Your task to perform on an android device: toggle priority inbox in the gmail app Image 0: 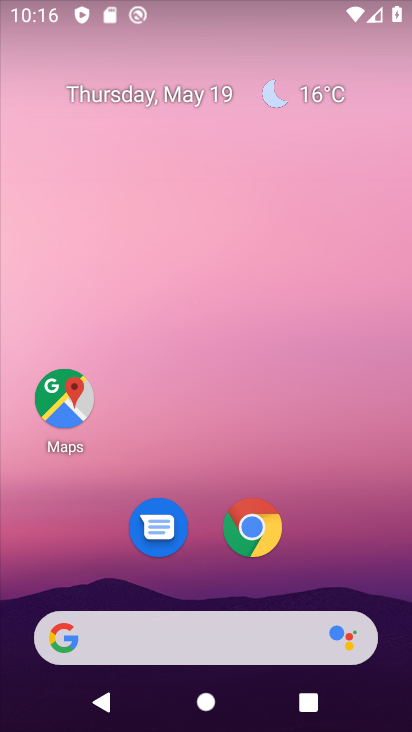
Step 0: drag from (179, 491) to (170, 259)
Your task to perform on an android device: toggle priority inbox in the gmail app Image 1: 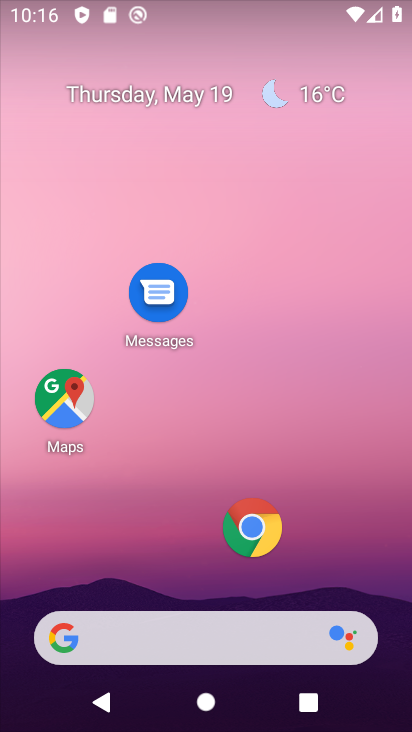
Step 1: drag from (184, 571) to (175, 209)
Your task to perform on an android device: toggle priority inbox in the gmail app Image 2: 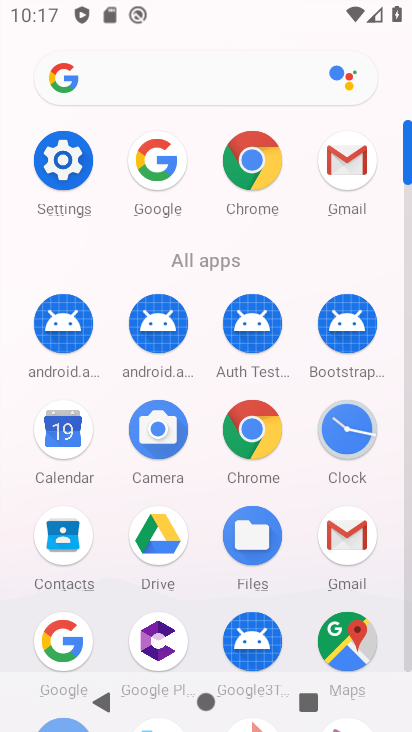
Step 2: drag from (197, 508) to (220, 205)
Your task to perform on an android device: toggle priority inbox in the gmail app Image 3: 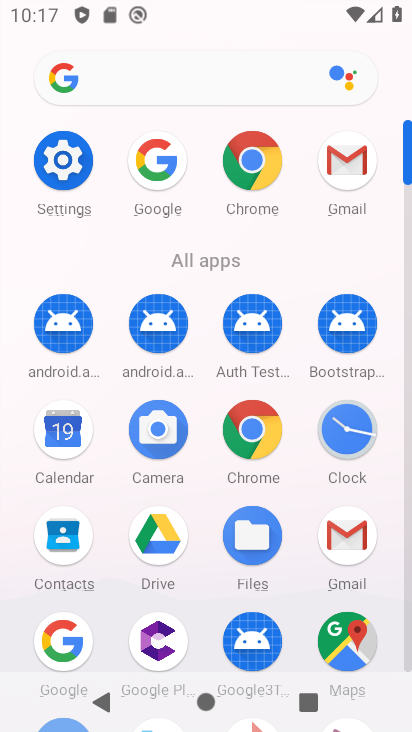
Step 3: click (344, 155)
Your task to perform on an android device: toggle priority inbox in the gmail app Image 4: 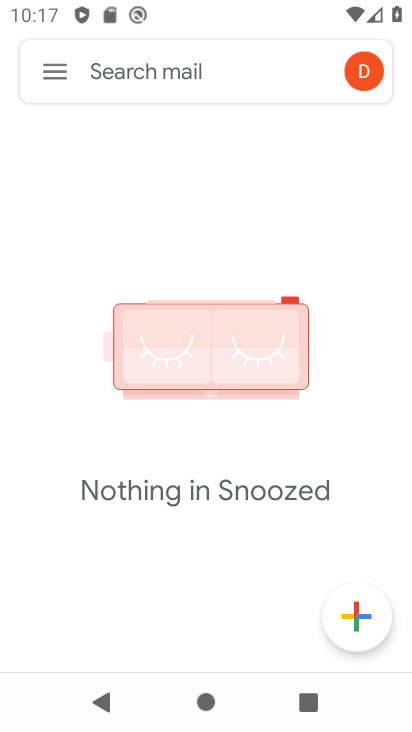
Step 4: click (58, 66)
Your task to perform on an android device: toggle priority inbox in the gmail app Image 5: 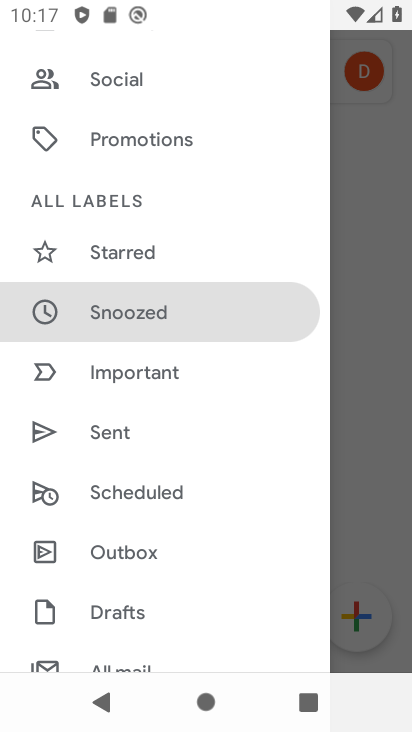
Step 5: drag from (113, 645) to (113, 185)
Your task to perform on an android device: toggle priority inbox in the gmail app Image 6: 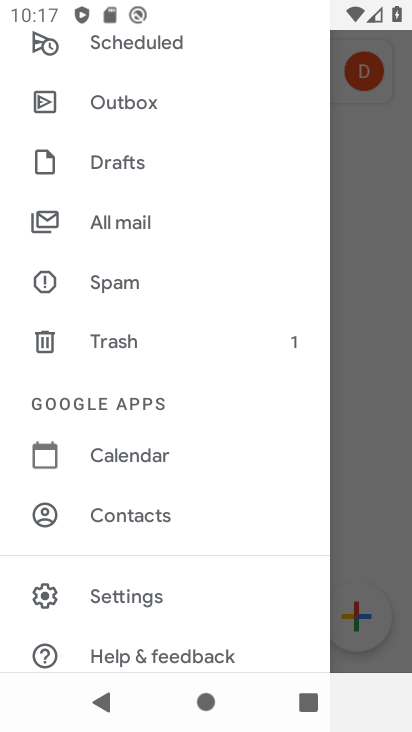
Step 6: drag from (97, 566) to (107, 190)
Your task to perform on an android device: toggle priority inbox in the gmail app Image 7: 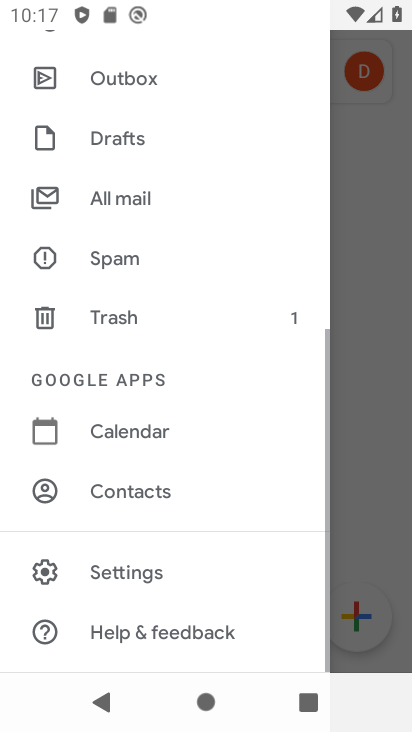
Step 7: click (122, 597)
Your task to perform on an android device: toggle priority inbox in the gmail app Image 8: 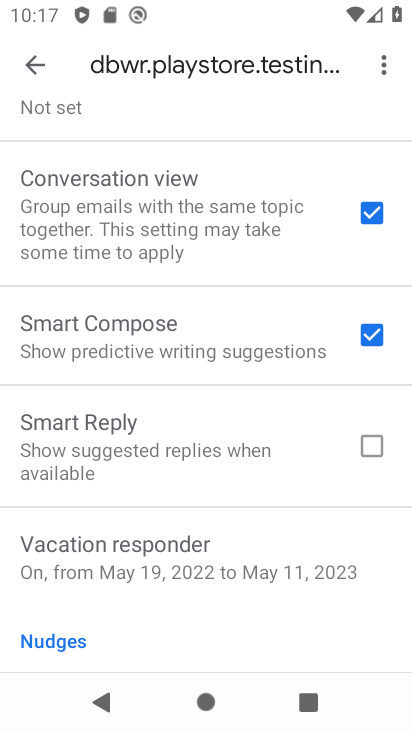
Step 8: drag from (155, 322) to (126, 664)
Your task to perform on an android device: toggle priority inbox in the gmail app Image 9: 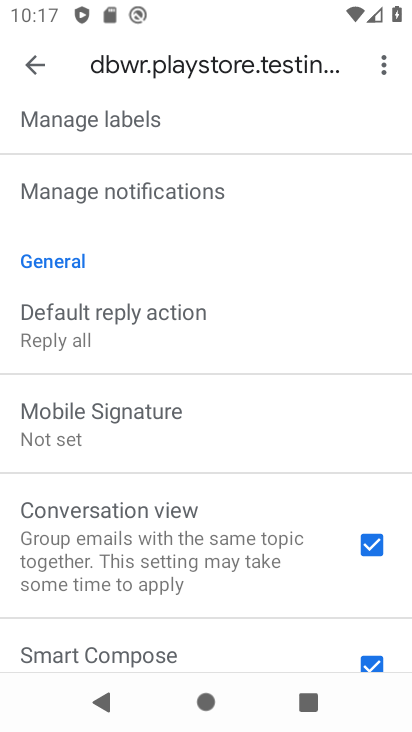
Step 9: drag from (214, 175) to (207, 506)
Your task to perform on an android device: toggle priority inbox in the gmail app Image 10: 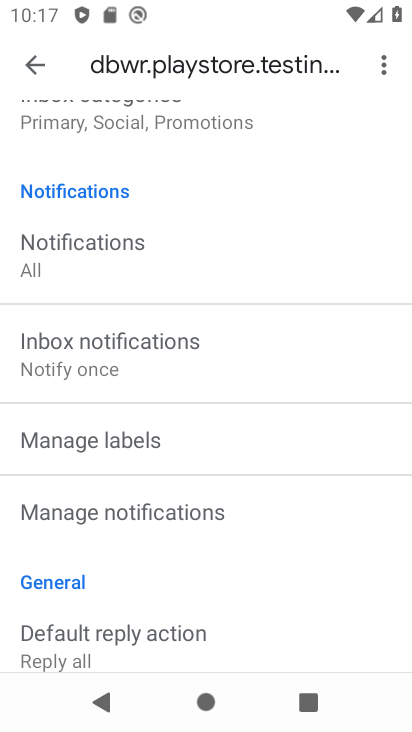
Step 10: click (160, 553)
Your task to perform on an android device: toggle priority inbox in the gmail app Image 11: 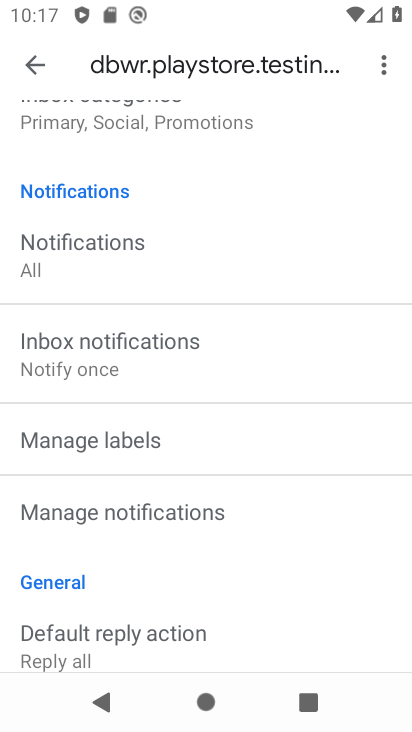
Step 11: drag from (100, 156) to (91, 581)
Your task to perform on an android device: toggle priority inbox in the gmail app Image 12: 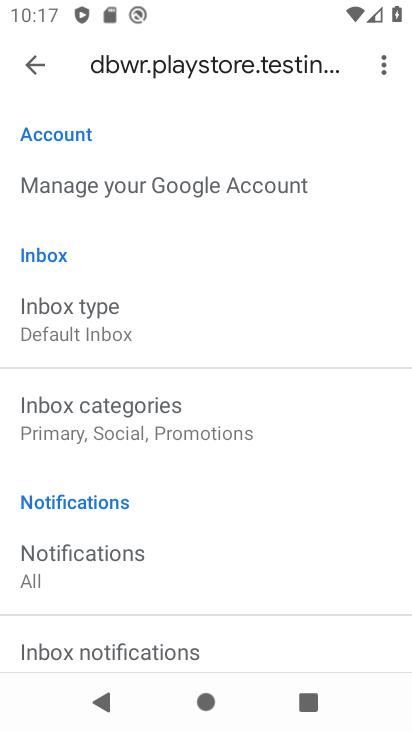
Step 12: drag from (163, 499) to (164, 568)
Your task to perform on an android device: toggle priority inbox in the gmail app Image 13: 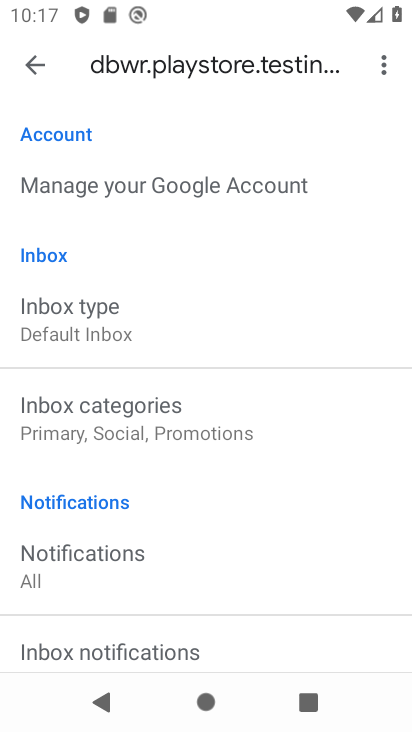
Step 13: drag from (112, 221) to (120, 496)
Your task to perform on an android device: toggle priority inbox in the gmail app Image 14: 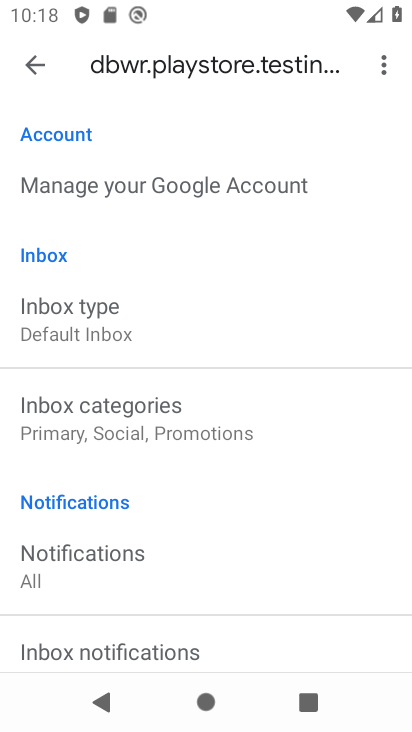
Step 14: click (60, 328)
Your task to perform on an android device: toggle priority inbox in the gmail app Image 15: 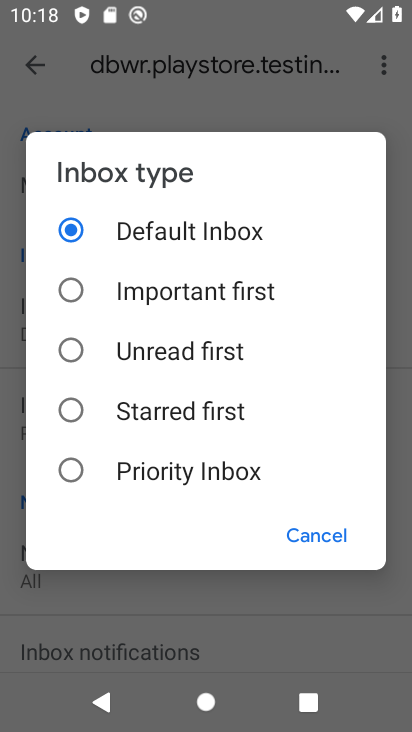
Step 15: click (105, 318)
Your task to perform on an android device: toggle priority inbox in the gmail app Image 16: 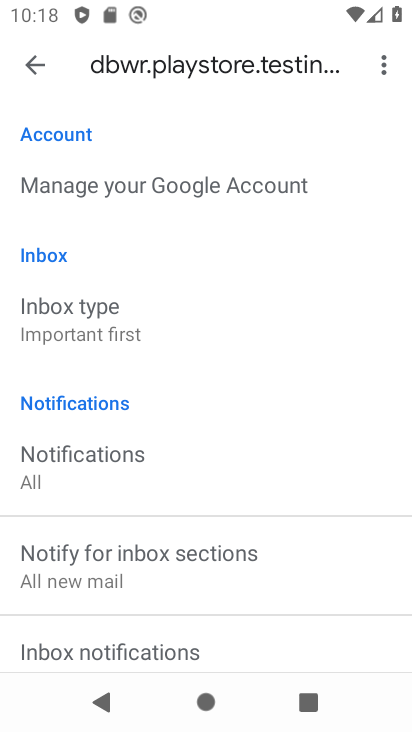
Step 16: click (71, 325)
Your task to perform on an android device: toggle priority inbox in the gmail app Image 17: 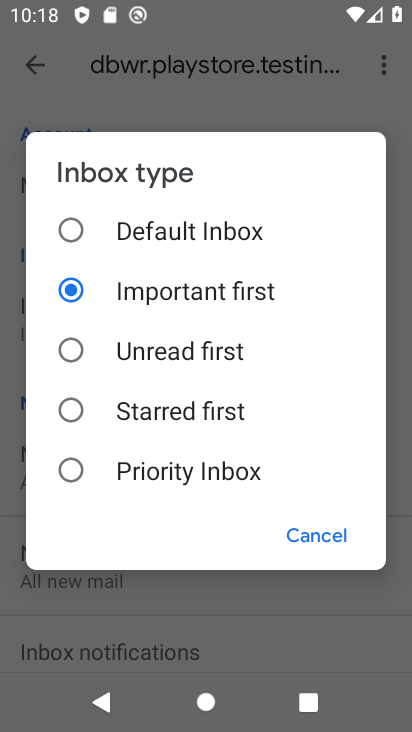
Step 17: click (117, 472)
Your task to perform on an android device: toggle priority inbox in the gmail app Image 18: 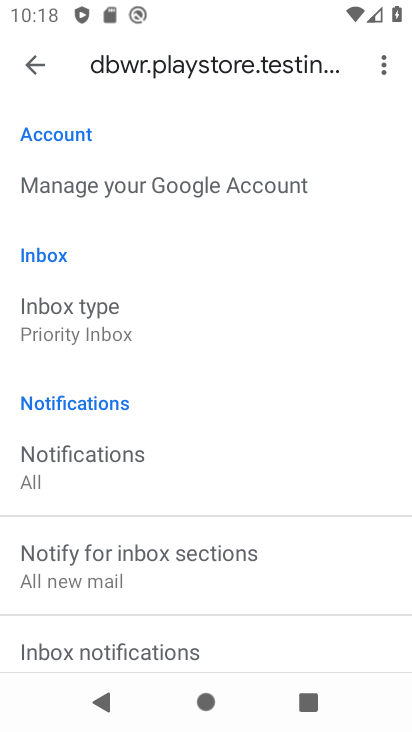
Step 18: click (72, 473)
Your task to perform on an android device: toggle priority inbox in the gmail app Image 19: 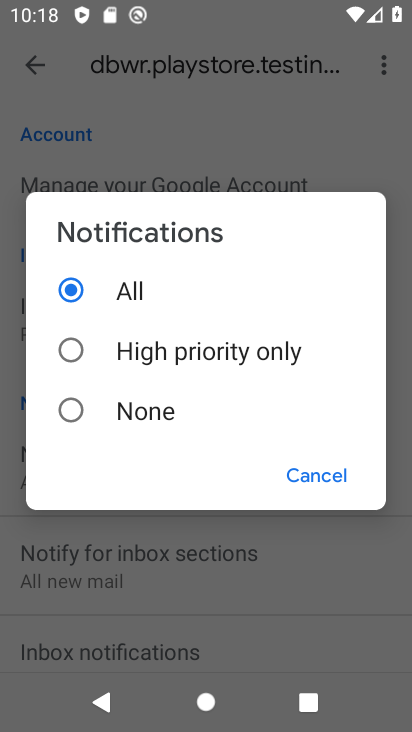
Step 19: click (314, 475)
Your task to perform on an android device: toggle priority inbox in the gmail app Image 20: 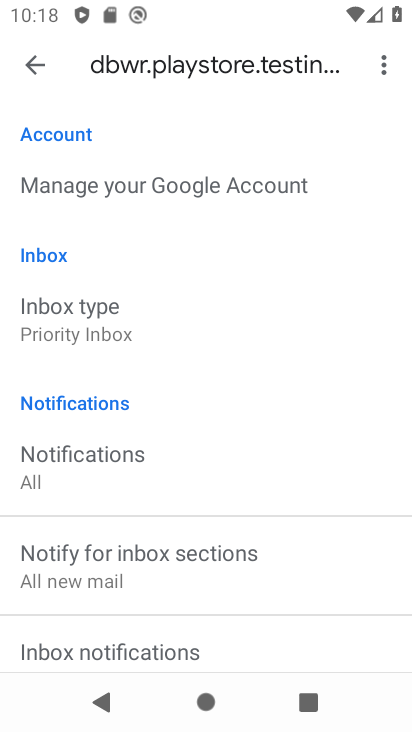
Step 20: task complete